Your task to perform on an android device: set the stopwatch Image 0: 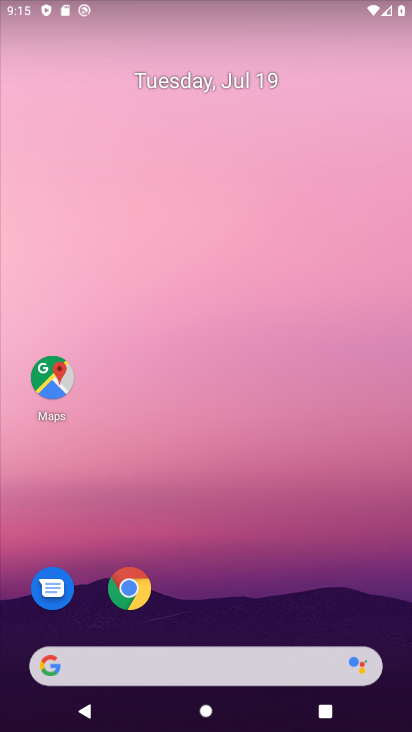
Step 0: drag from (224, 626) to (239, 48)
Your task to perform on an android device: set the stopwatch Image 1: 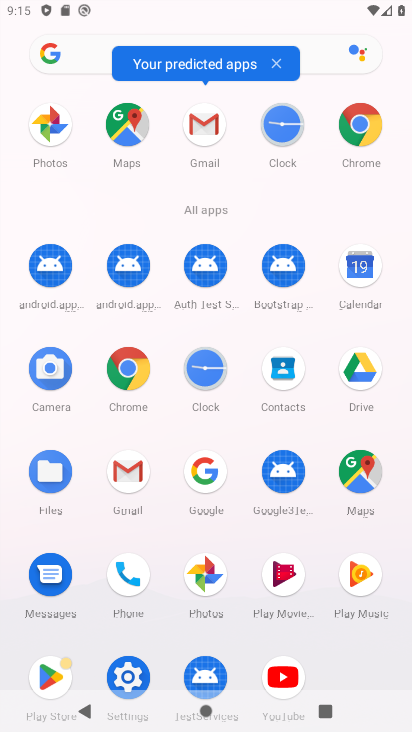
Step 1: click (279, 121)
Your task to perform on an android device: set the stopwatch Image 2: 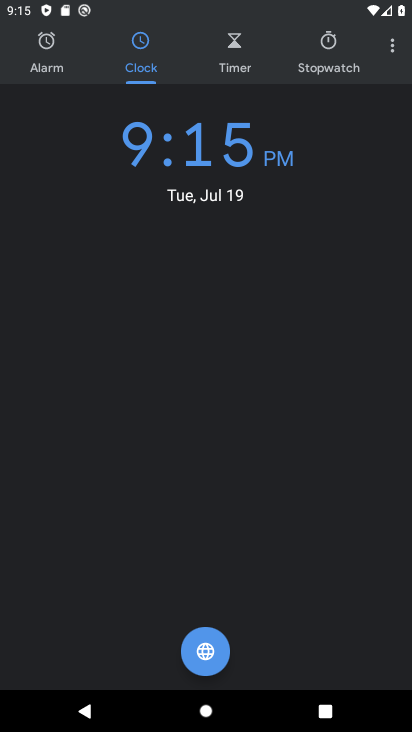
Step 2: click (329, 37)
Your task to perform on an android device: set the stopwatch Image 3: 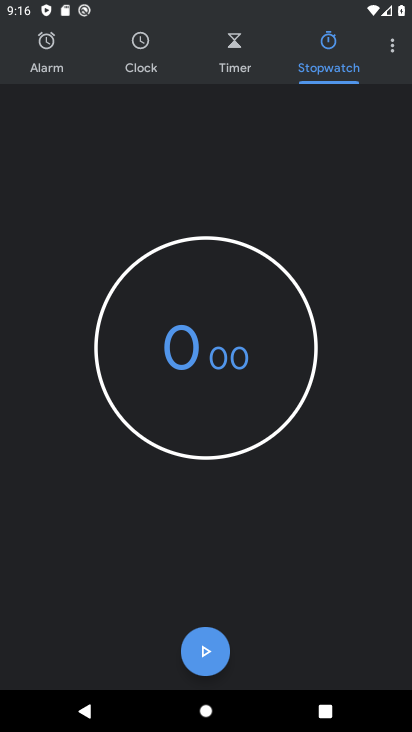
Step 3: click (203, 649)
Your task to perform on an android device: set the stopwatch Image 4: 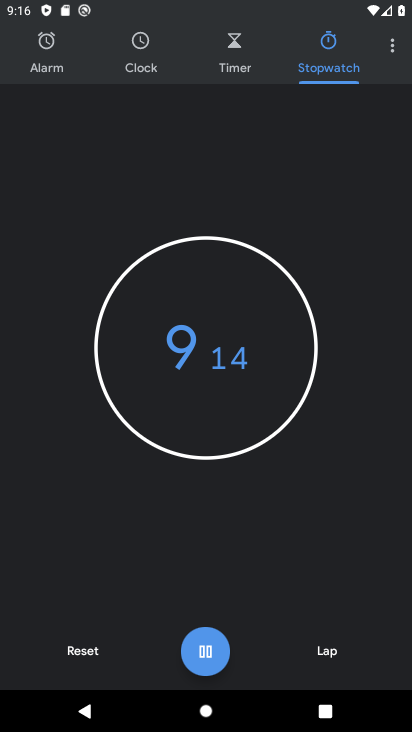
Step 4: task complete